Your task to perform on an android device: Go to network settings Image 0: 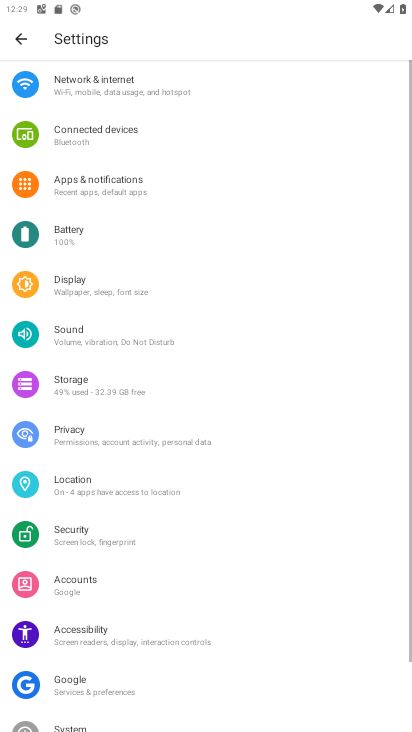
Step 0: press home button
Your task to perform on an android device: Go to network settings Image 1: 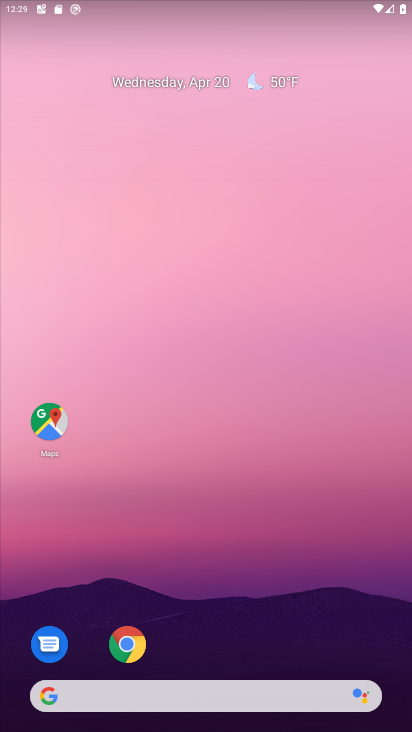
Step 1: drag from (226, 618) to (235, 39)
Your task to perform on an android device: Go to network settings Image 2: 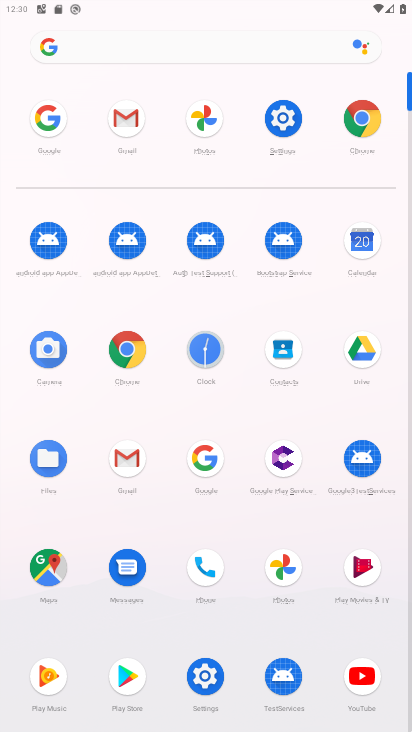
Step 2: click (281, 121)
Your task to perform on an android device: Go to network settings Image 3: 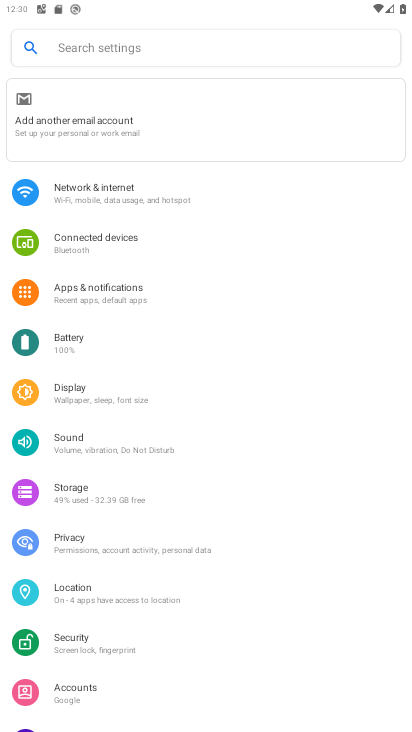
Step 3: click (144, 185)
Your task to perform on an android device: Go to network settings Image 4: 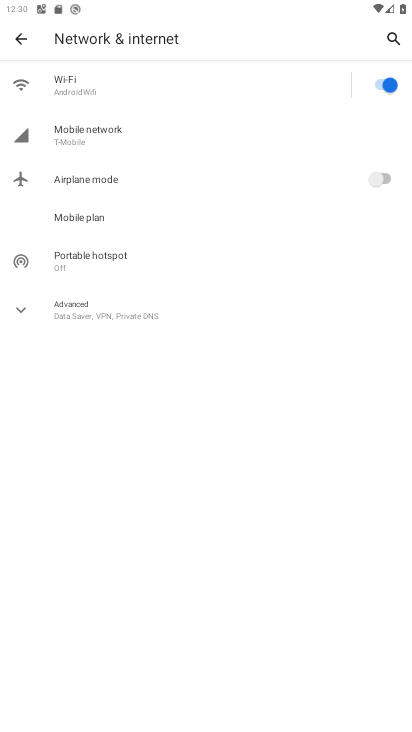
Step 4: task complete